Your task to perform on an android device: turn off notifications settings in the gmail app Image 0: 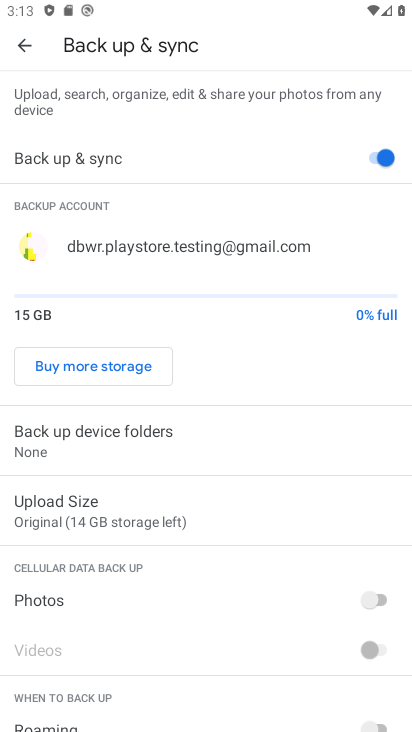
Step 0: press home button
Your task to perform on an android device: turn off notifications settings in the gmail app Image 1: 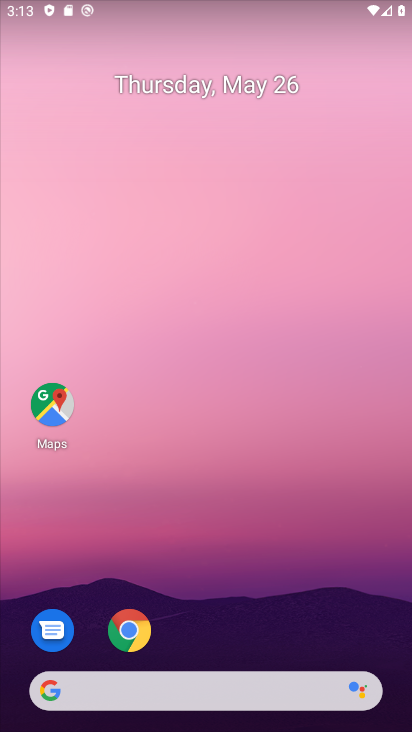
Step 1: drag from (227, 605) to (242, 127)
Your task to perform on an android device: turn off notifications settings in the gmail app Image 2: 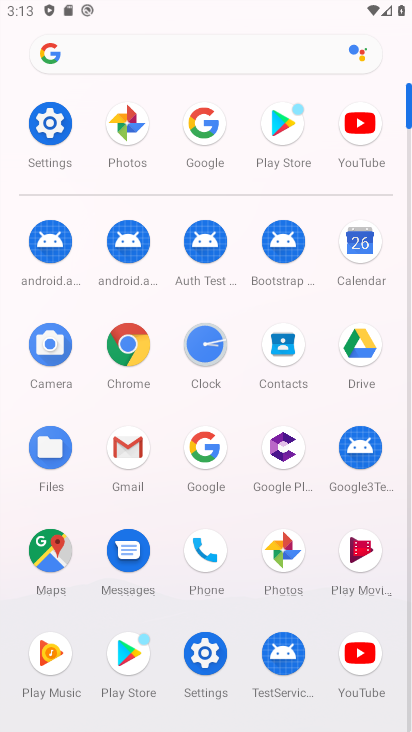
Step 2: click (127, 447)
Your task to perform on an android device: turn off notifications settings in the gmail app Image 3: 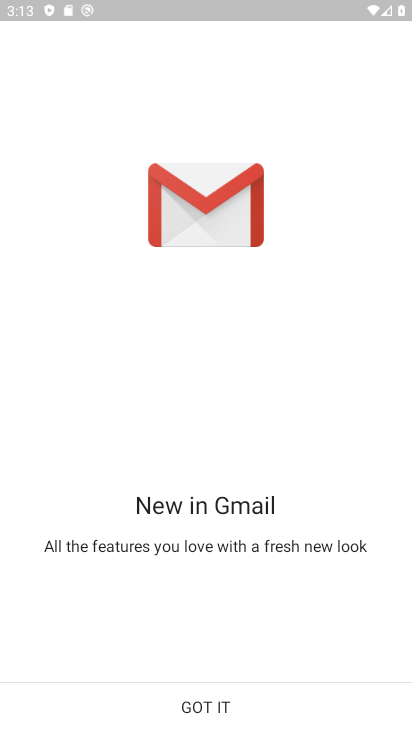
Step 3: click (202, 703)
Your task to perform on an android device: turn off notifications settings in the gmail app Image 4: 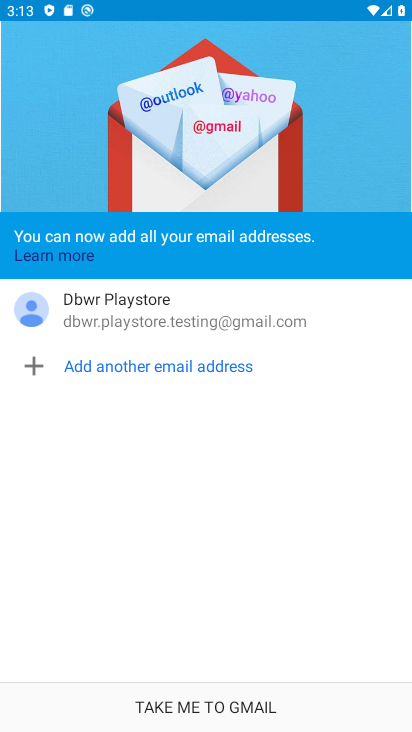
Step 4: click (202, 703)
Your task to perform on an android device: turn off notifications settings in the gmail app Image 5: 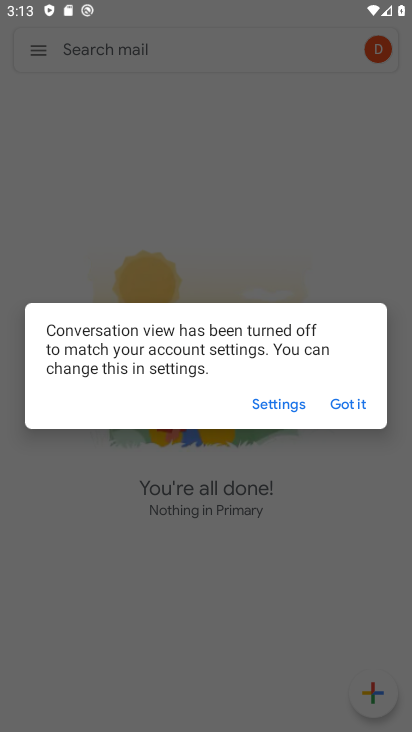
Step 5: click (356, 404)
Your task to perform on an android device: turn off notifications settings in the gmail app Image 6: 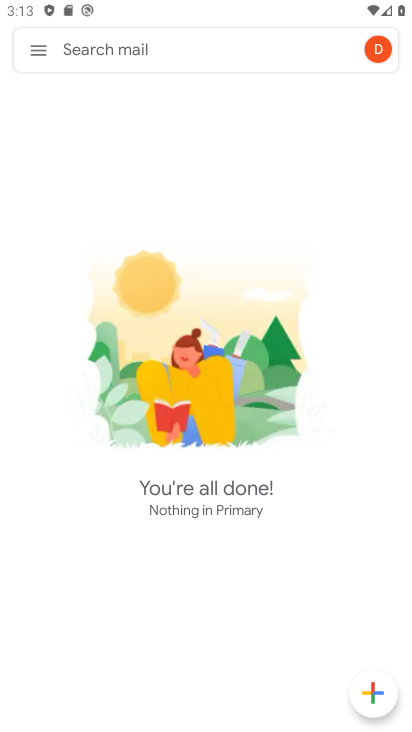
Step 6: click (37, 49)
Your task to perform on an android device: turn off notifications settings in the gmail app Image 7: 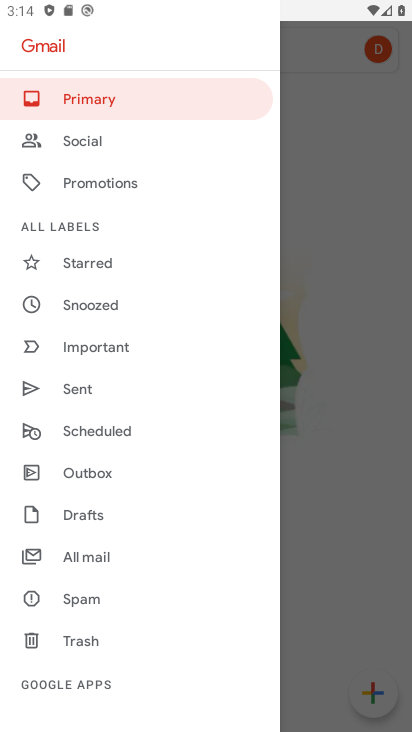
Step 7: drag from (96, 577) to (136, 506)
Your task to perform on an android device: turn off notifications settings in the gmail app Image 8: 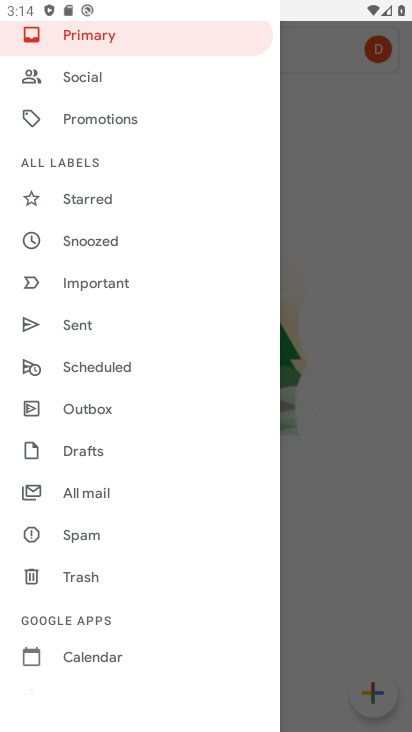
Step 8: drag from (87, 560) to (121, 475)
Your task to perform on an android device: turn off notifications settings in the gmail app Image 9: 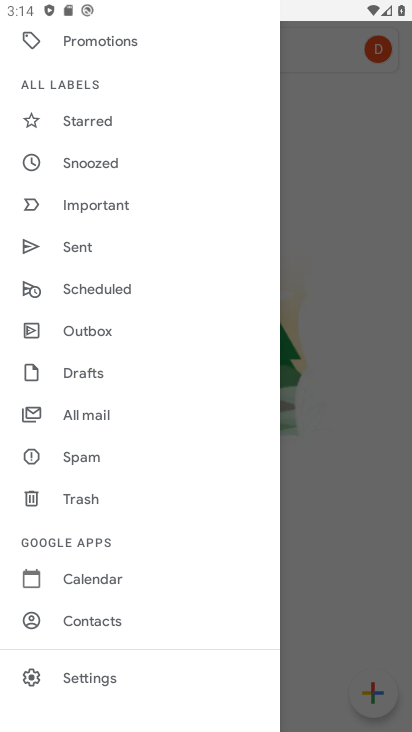
Step 9: drag from (81, 597) to (129, 509)
Your task to perform on an android device: turn off notifications settings in the gmail app Image 10: 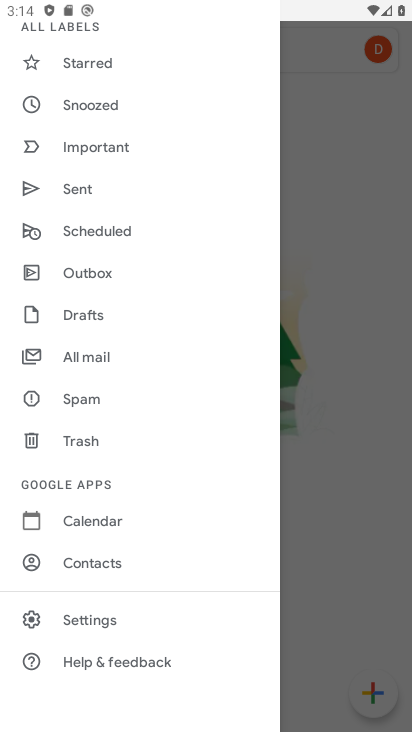
Step 10: click (101, 617)
Your task to perform on an android device: turn off notifications settings in the gmail app Image 11: 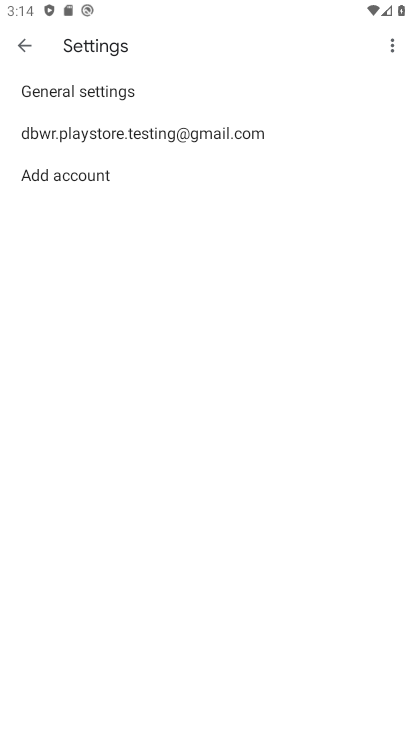
Step 11: click (232, 137)
Your task to perform on an android device: turn off notifications settings in the gmail app Image 12: 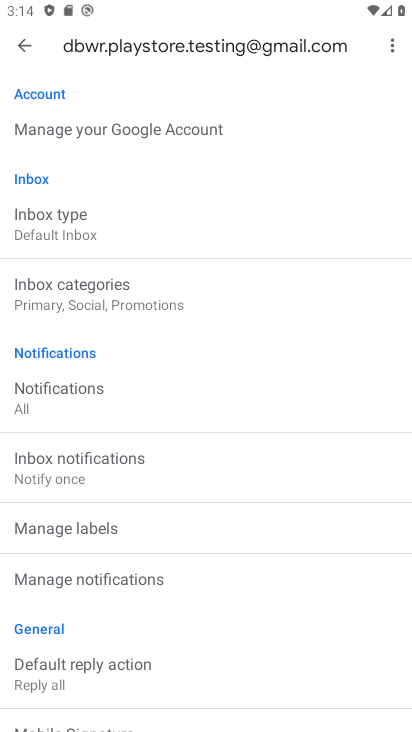
Step 12: click (99, 580)
Your task to perform on an android device: turn off notifications settings in the gmail app Image 13: 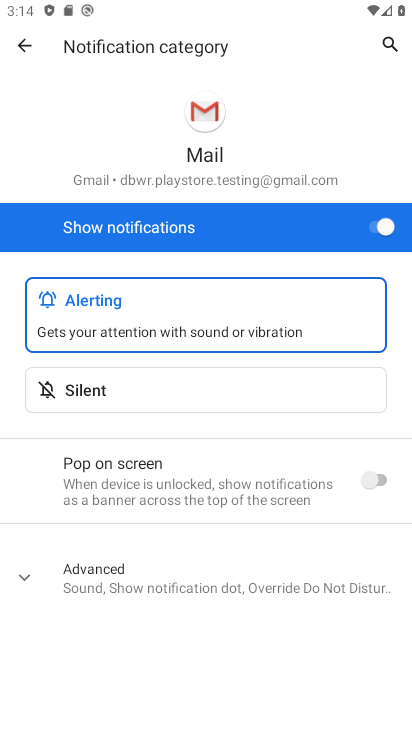
Step 13: click (375, 230)
Your task to perform on an android device: turn off notifications settings in the gmail app Image 14: 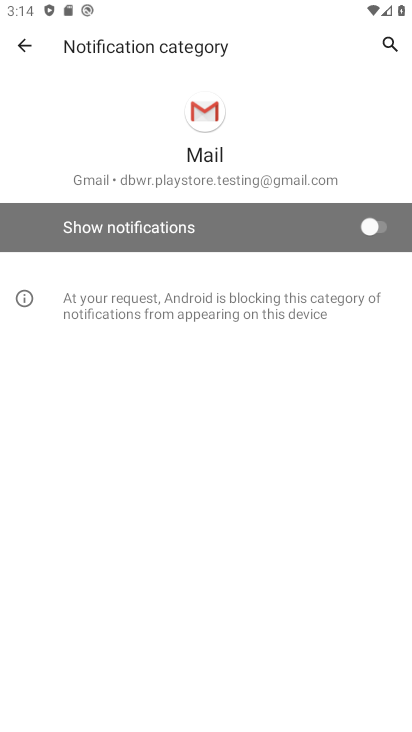
Step 14: task complete